Your task to perform on an android device: Open Google Maps and go to "Timeline" Image 0: 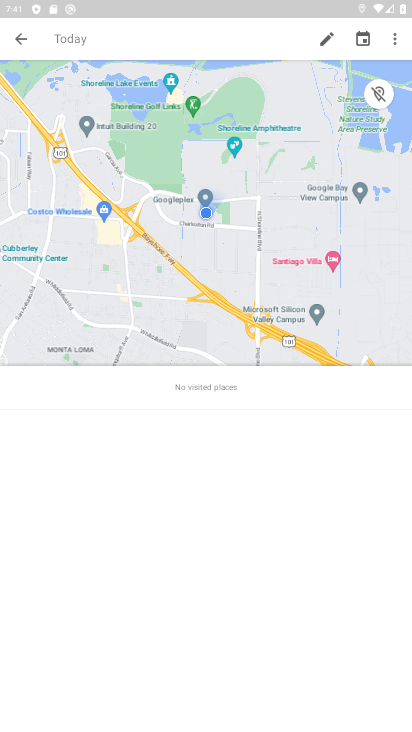
Step 0: click (19, 37)
Your task to perform on an android device: Open Google Maps and go to "Timeline" Image 1: 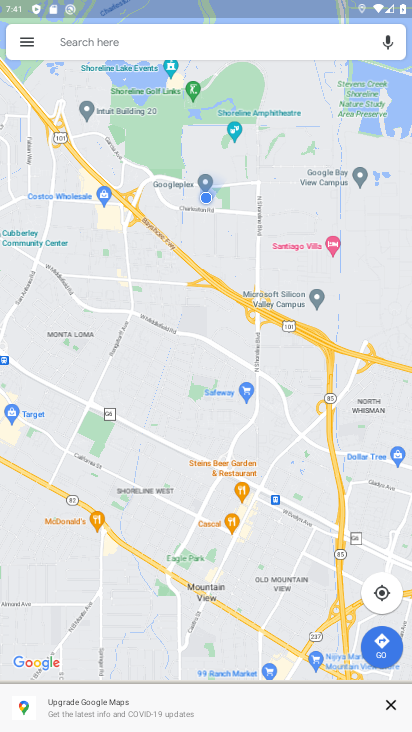
Step 1: click (23, 41)
Your task to perform on an android device: Open Google Maps and go to "Timeline" Image 2: 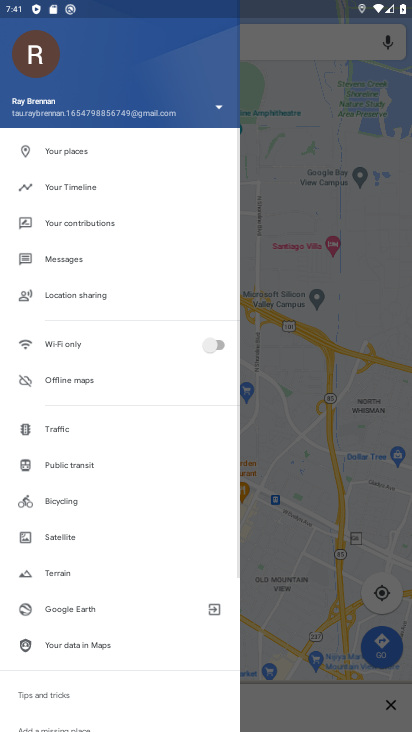
Step 2: click (84, 185)
Your task to perform on an android device: Open Google Maps and go to "Timeline" Image 3: 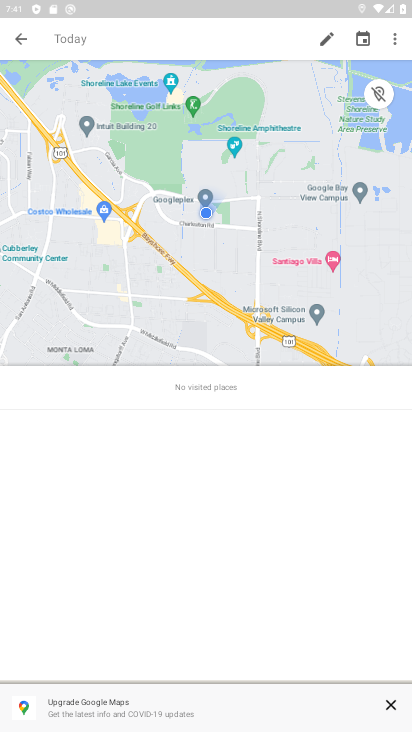
Step 3: task complete